Your task to perform on an android device: open a bookmark in the chrome app Image 0: 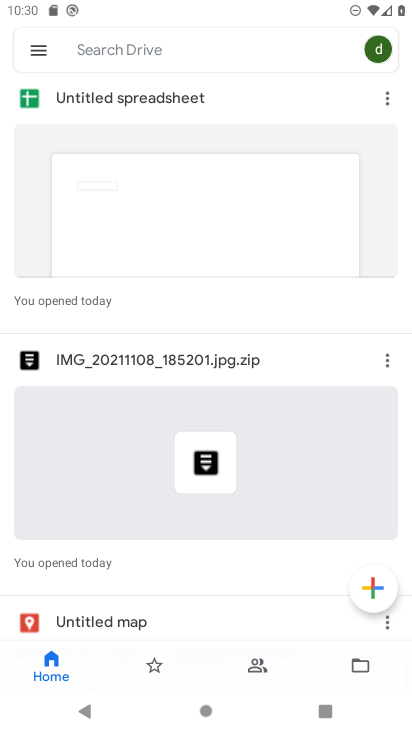
Step 0: press home button
Your task to perform on an android device: open a bookmark in the chrome app Image 1: 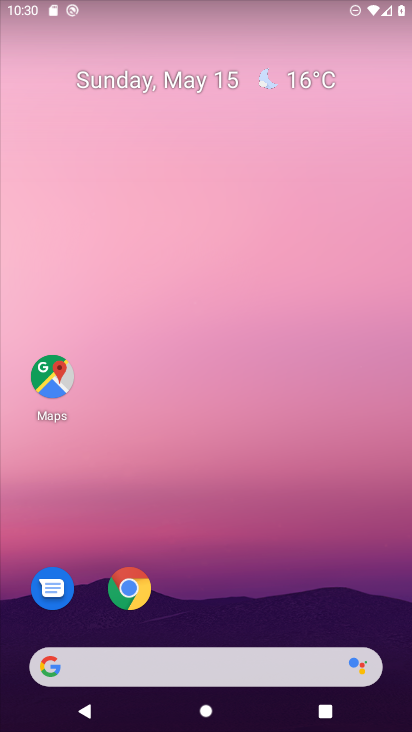
Step 1: click (121, 598)
Your task to perform on an android device: open a bookmark in the chrome app Image 2: 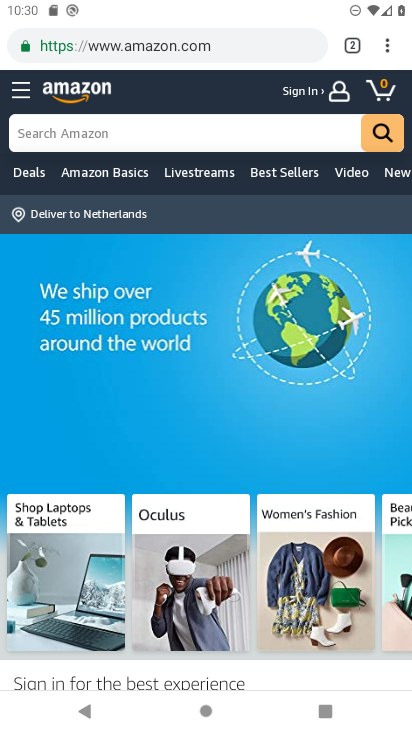
Step 2: click (390, 41)
Your task to perform on an android device: open a bookmark in the chrome app Image 3: 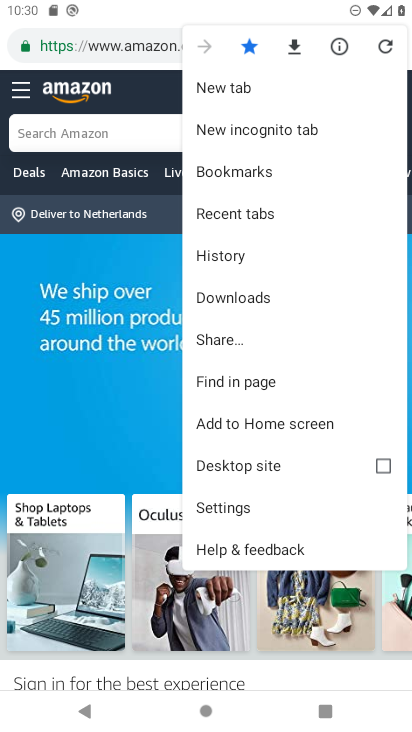
Step 3: click (240, 173)
Your task to perform on an android device: open a bookmark in the chrome app Image 4: 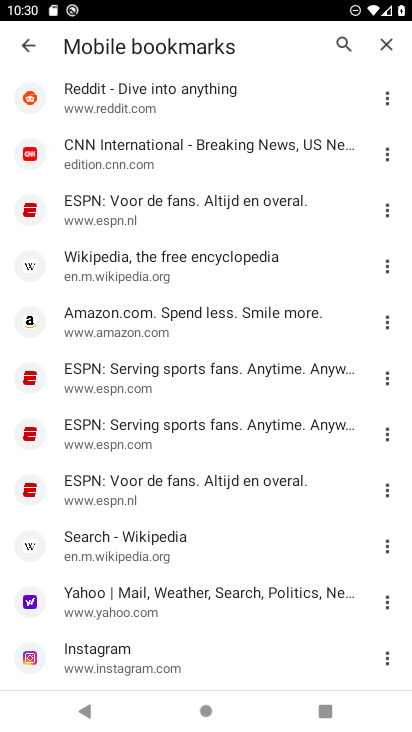
Step 4: click (159, 161)
Your task to perform on an android device: open a bookmark in the chrome app Image 5: 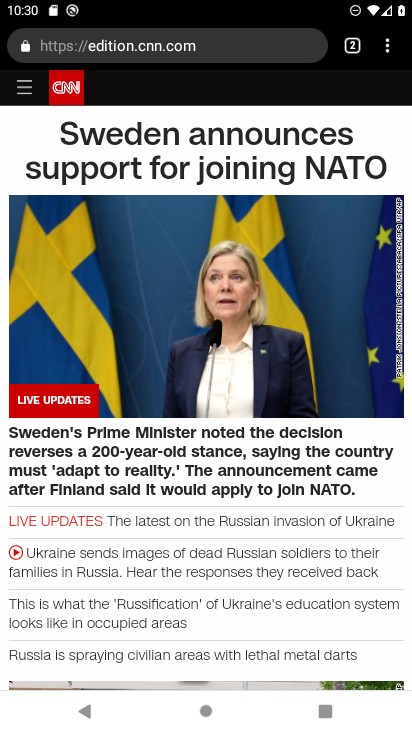
Step 5: task complete